Your task to perform on an android device: open a new tab in the chrome app Image 0: 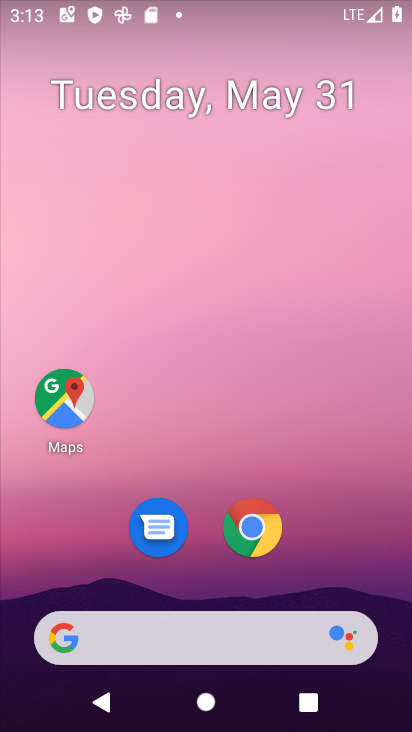
Step 0: drag from (357, 528) to (320, 106)
Your task to perform on an android device: open a new tab in the chrome app Image 1: 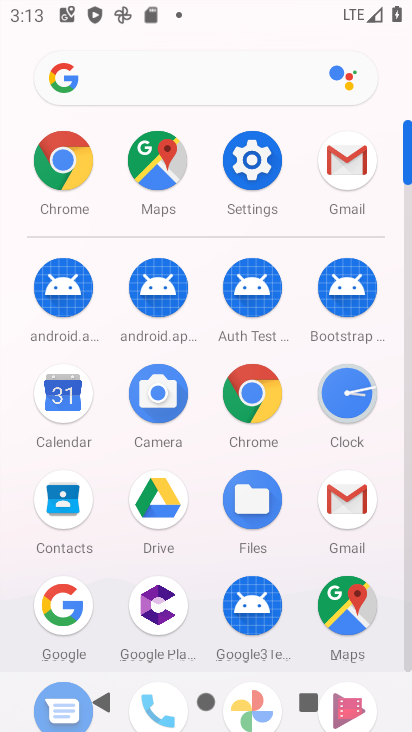
Step 1: click (84, 176)
Your task to perform on an android device: open a new tab in the chrome app Image 2: 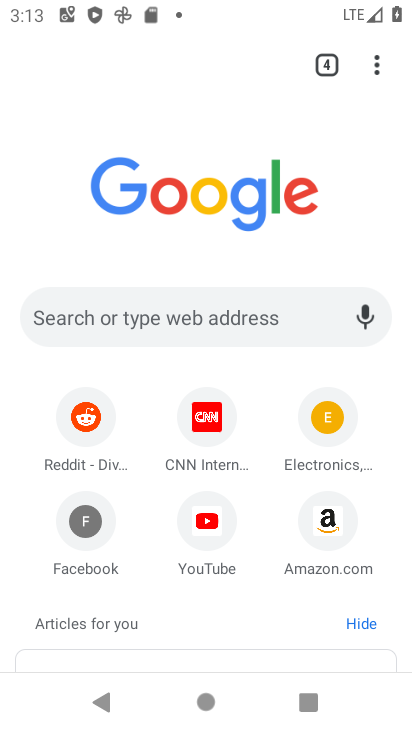
Step 2: task complete